Your task to perform on an android device: change the clock display to show seconds Image 0: 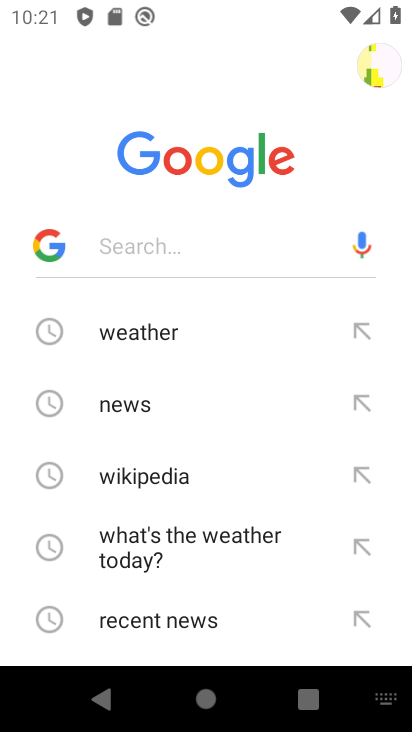
Step 0: press home button
Your task to perform on an android device: change the clock display to show seconds Image 1: 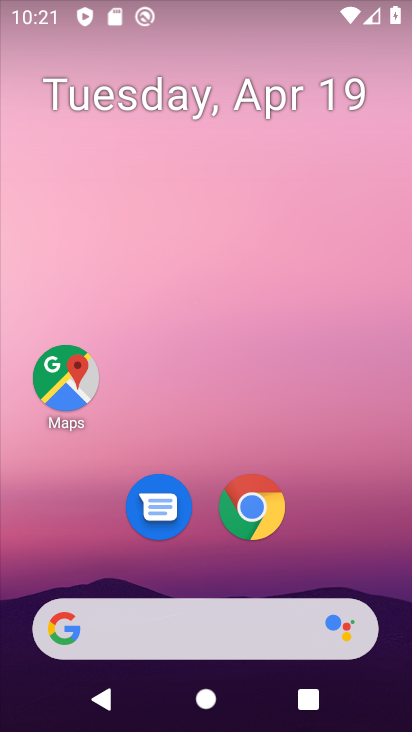
Step 1: drag from (346, 466) to (360, 99)
Your task to perform on an android device: change the clock display to show seconds Image 2: 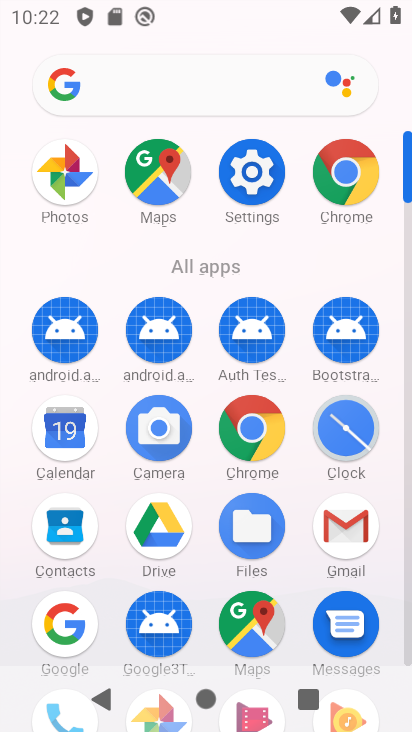
Step 2: click (351, 441)
Your task to perform on an android device: change the clock display to show seconds Image 3: 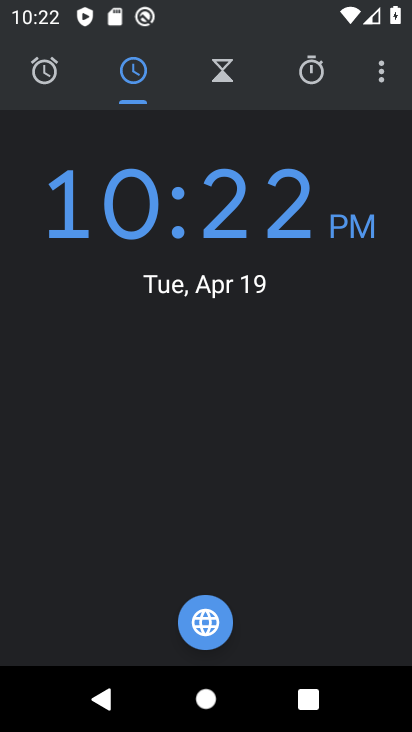
Step 3: click (382, 71)
Your task to perform on an android device: change the clock display to show seconds Image 4: 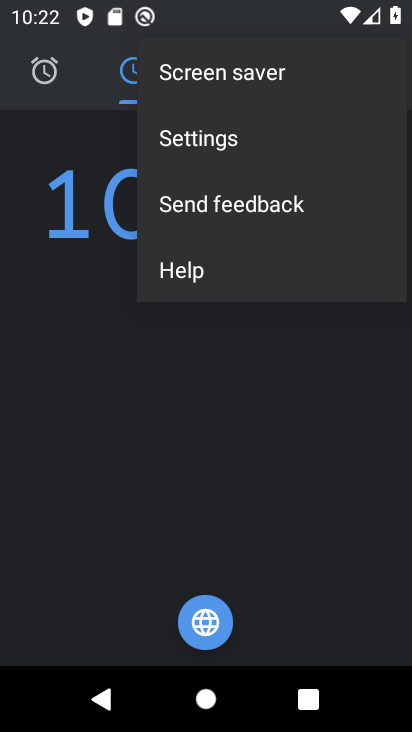
Step 4: click (195, 136)
Your task to perform on an android device: change the clock display to show seconds Image 5: 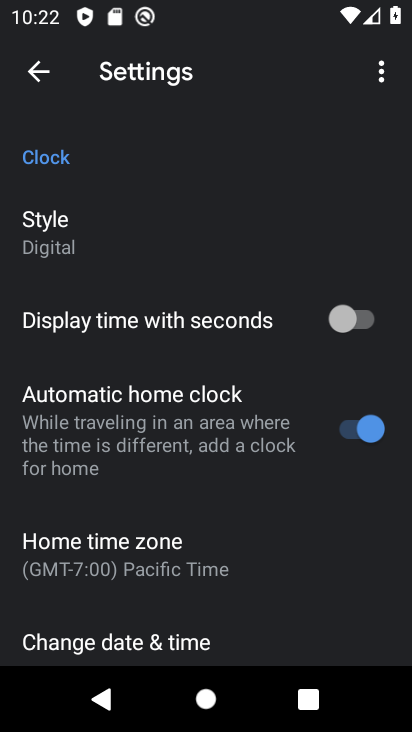
Step 5: drag from (290, 570) to (310, 339)
Your task to perform on an android device: change the clock display to show seconds Image 6: 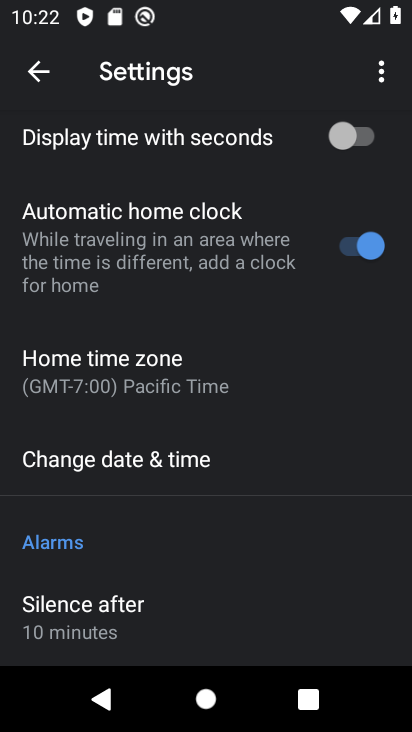
Step 6: drag from (325, 569) to (342, 337)
Your task to perform on an android device: change the clock display to show seconds Image 7: 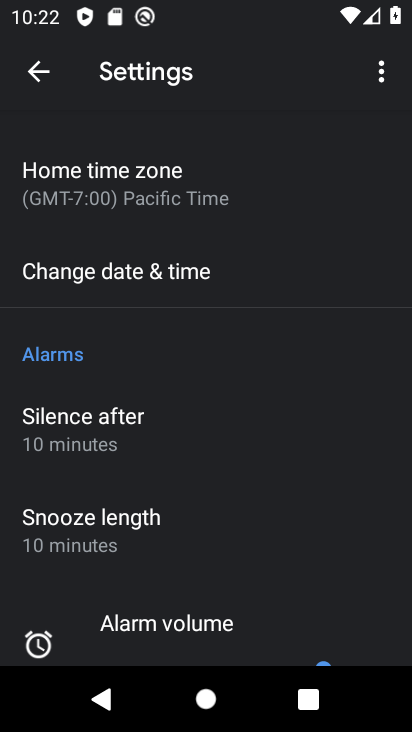
Step 7: drag from (341, 543) to (361, 258)
Your task to perform on an android device: change the clock display to show seconds Image 8: 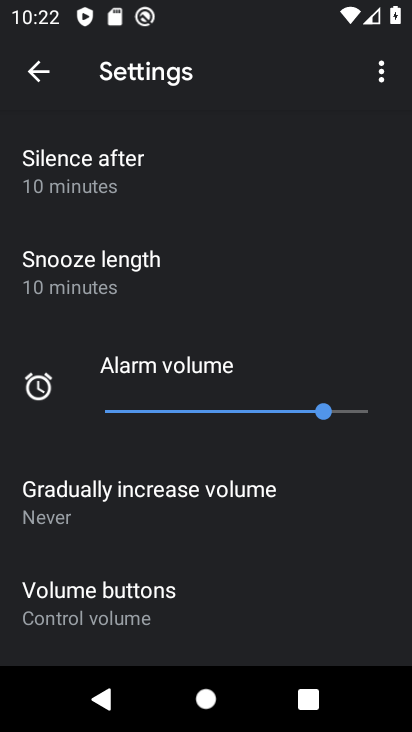
Step 8: drag from (354, 574) to (368, 314)
Your task to perform on an android device: change the clock display to show seconds Image 9: 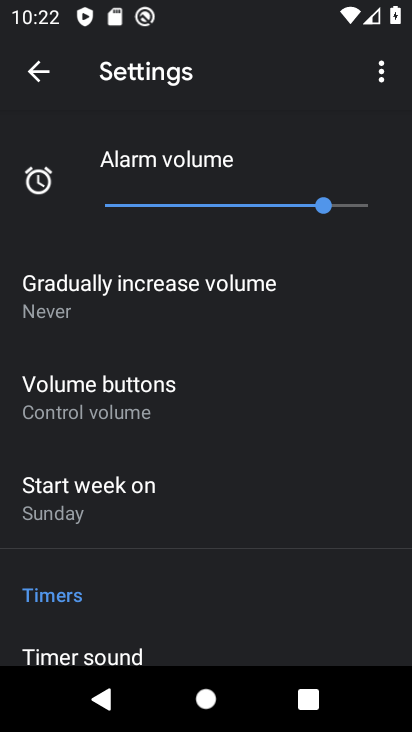
Step 9: drag from (370, 302) to (371, 593)
Your task to perform on an android device: change the clock display to show seconds Image 10: 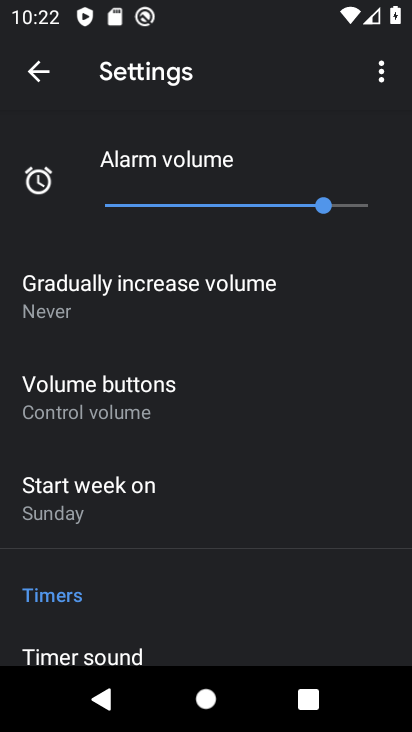
Step 10: drag from (370, 269) to (373, 560)
Your task to perform on an android device: change the clock display to show seconds Image 11: 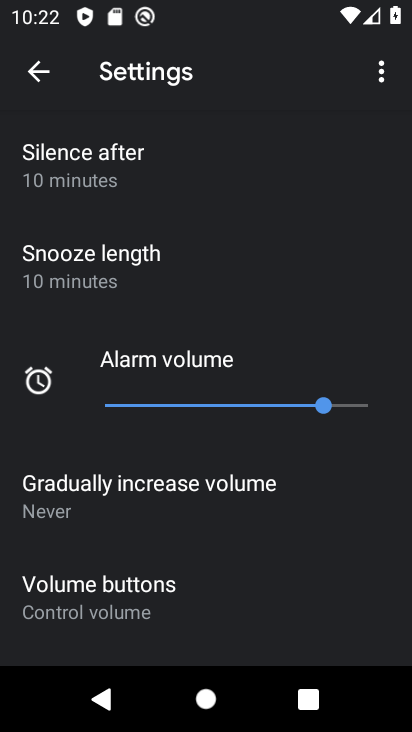
Step 11: drag from (382, 278) to (368, 565)
Your task to perform on an android device: change the clock display to show seconds Image 12: 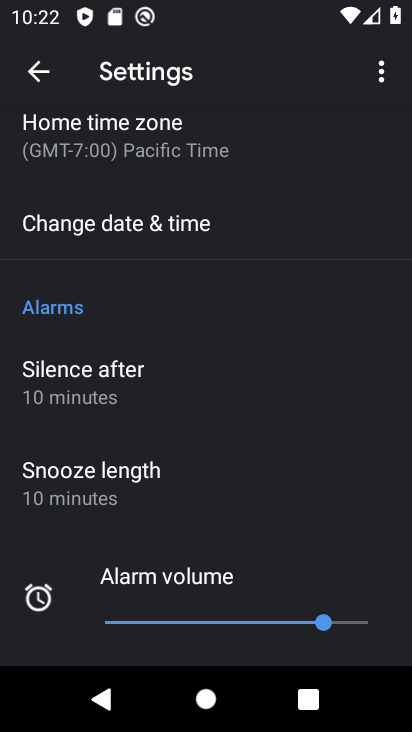
Step 12: drag from (345, 227) to (348, 478)
Your task to perform on an android device: change the clock display to show seconds Image 13: 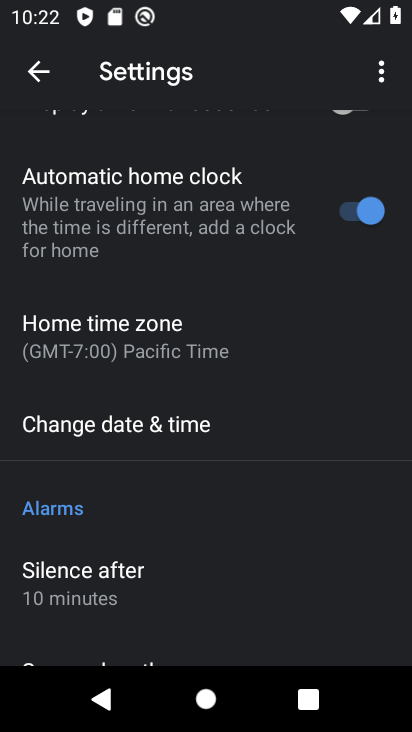
Step 13: drag from (325, 391) to (320, 525)
Your task to perform on an android device: change the clock display to show seconds Image 14: 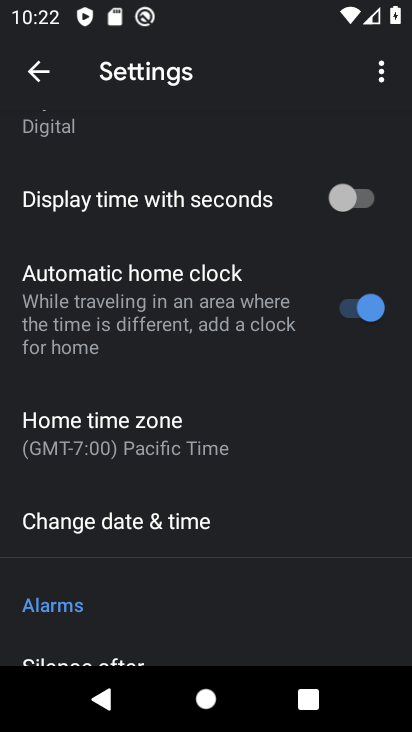
Step 14: click (336, 203)
Your task to perform on an android device: change the clock display to show seconds Image 15: 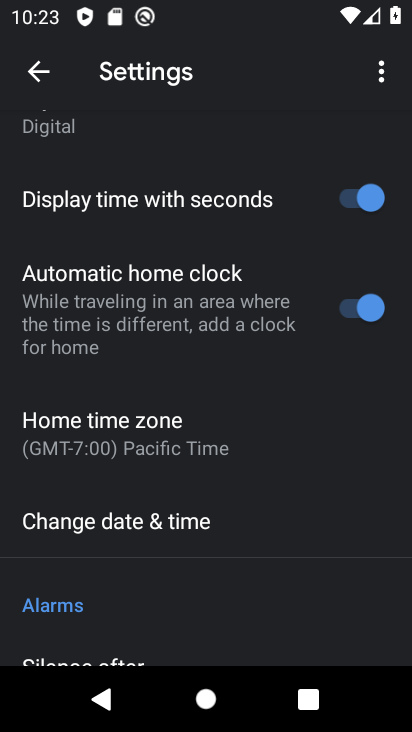
Step 15: task complete